Your task to perform on an android device: Open ESPN.com Image 0: 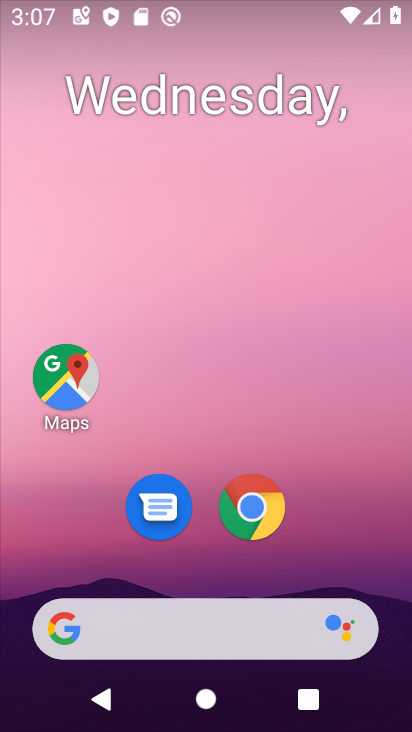
Step 0: click (245, 499)
Your task to perform on an android device: Open ESPN.com Image 1: 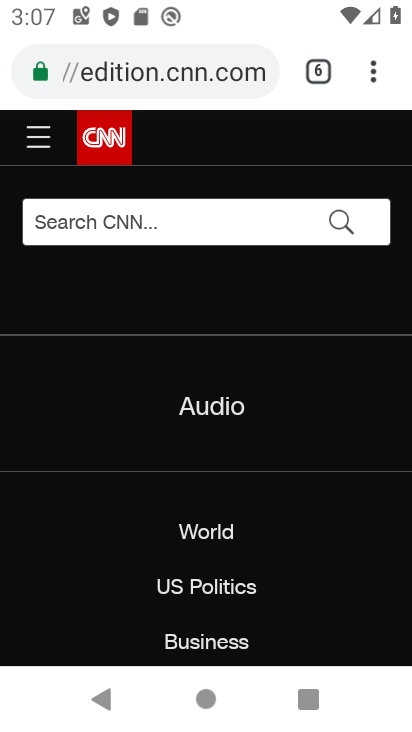
Step 1: click (322, 63)
Your task to perform on an android device: Open ESPN.com Image 2: 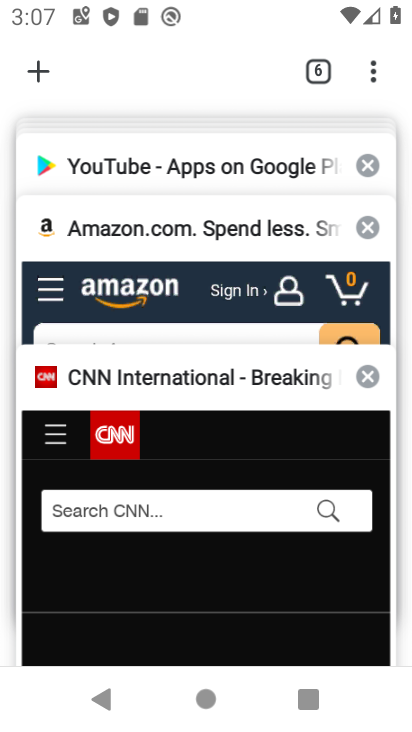
Step 2: drag from (243, 179) to (247, 345)
Your task to perform on an android device: Open ESPN.com Image 3: 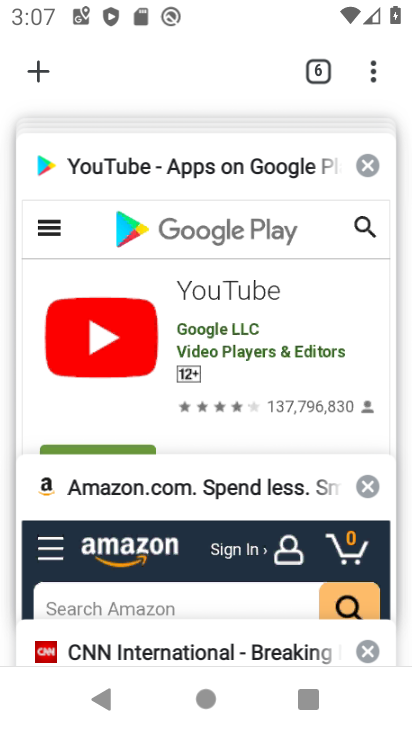
Step 3: drag from (213, 178) to (212, 429)
Your task to perform on an android device: Open ESPN.com Image 4: 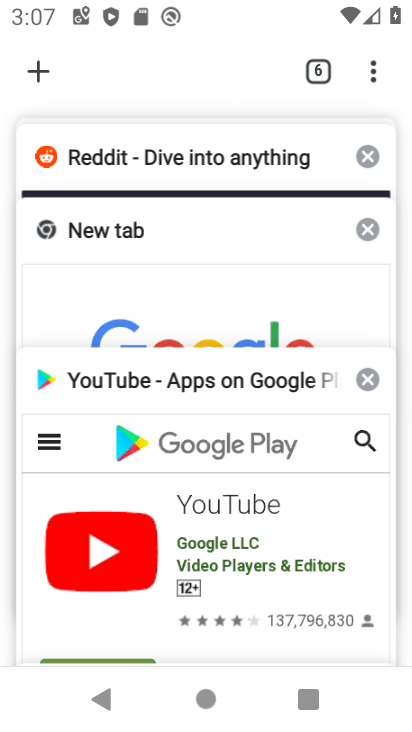
Step 4: drag from (210, 169) to (219, 562)
Your task to perform on an android device: Open ESPN.com Image 5: 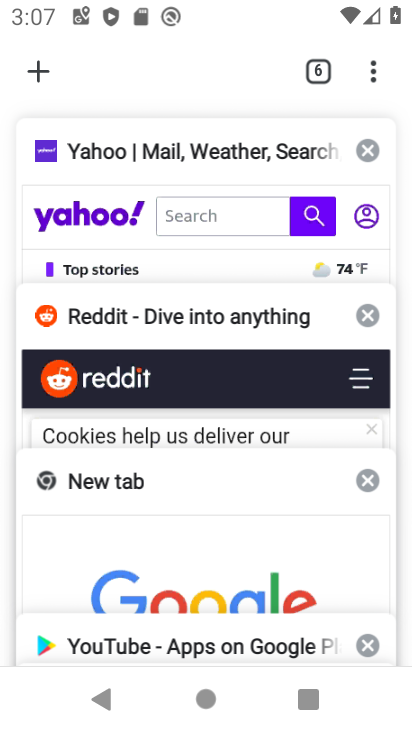
Step 5: drag from (204, 157) to (208, 564)
Your task to perform on an android device: Open ESPN.com Image 6: 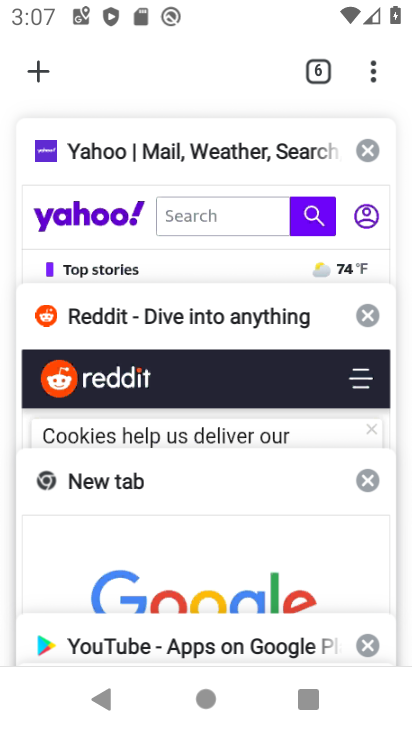
Step 6: click (161, 521)
Your task to perform on an android device: Open ESPN.com Image 7: 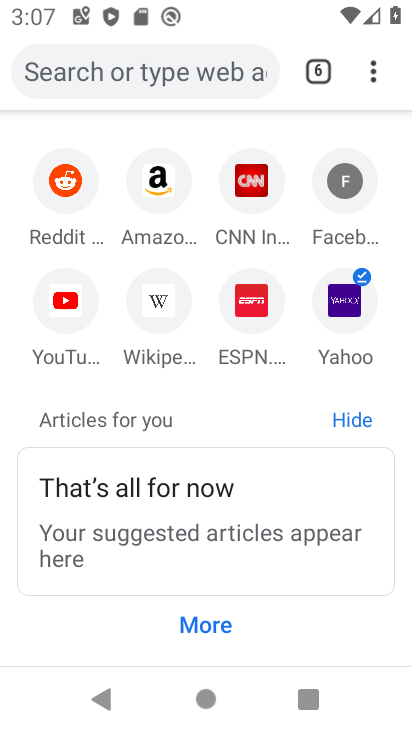
Step 7: click (255, 310)
Your task to perform on an android device: Open ESPN.com Image 8: 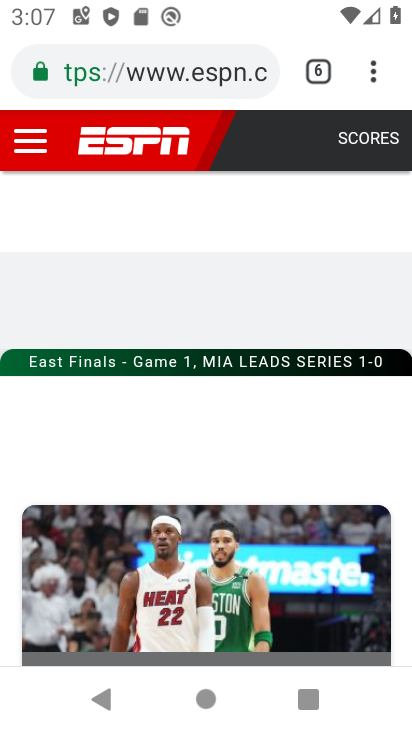
Step 8: task complete